Your task to perform on an android device: check google app version Image 0: 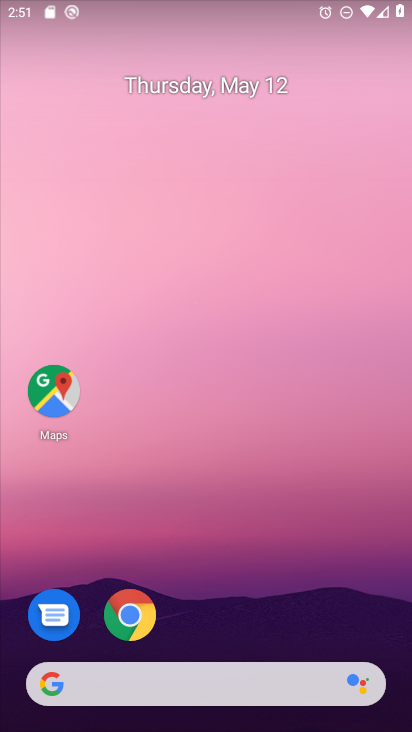
Step 0: drag from (304, 677) to (306, 4)
Your task to perform on an android device: check google app version Image 1: 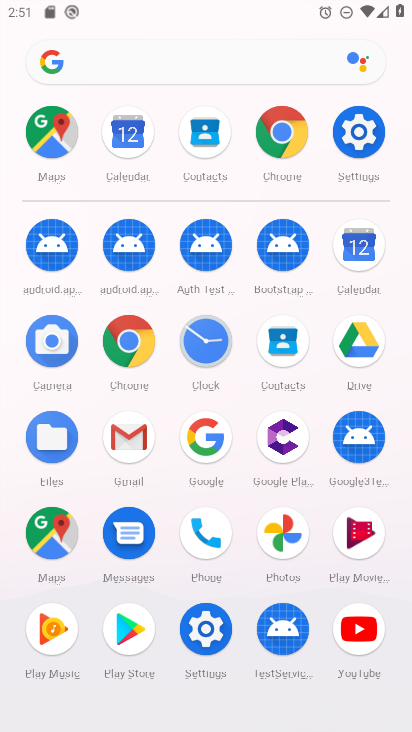
Step 1: click (142, 332)
Your task to perform on an android device: check google app version Image 2: 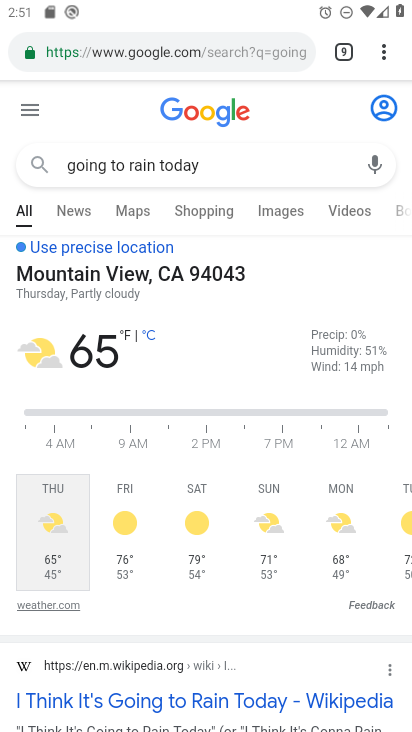
Step 2: task complete